Your task to perform on an android device: Clear the shopping cart on newegg.com. Search for "logitech g pro" on newegg.com, select the first entry, and add it to the cart. Image 0: 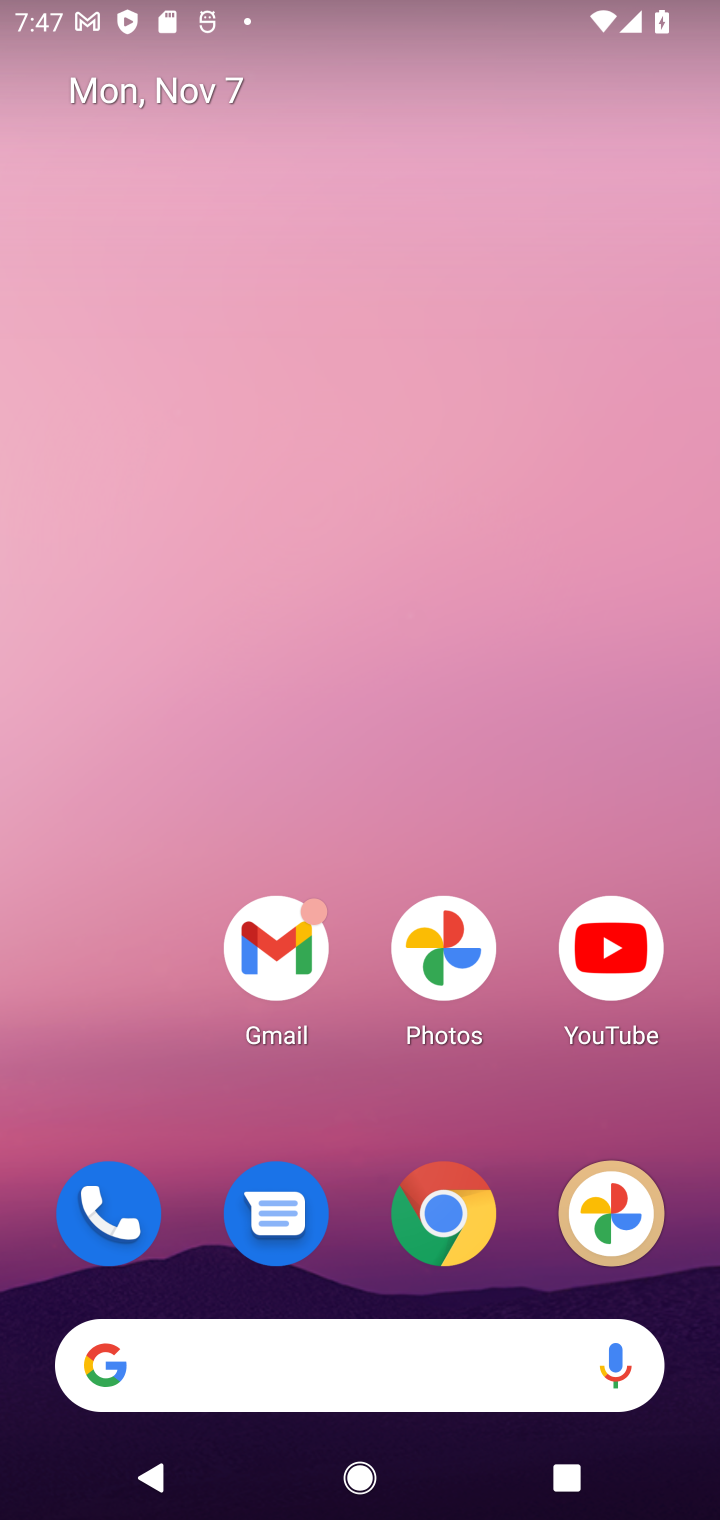
Step 0: click (453, 1210)
Your task to perform on an android device: Clear the shopping cart on newegg.com. Search for "logitech g pro" on newegg.com, select the first entry, and add it to the cart. Image 1: 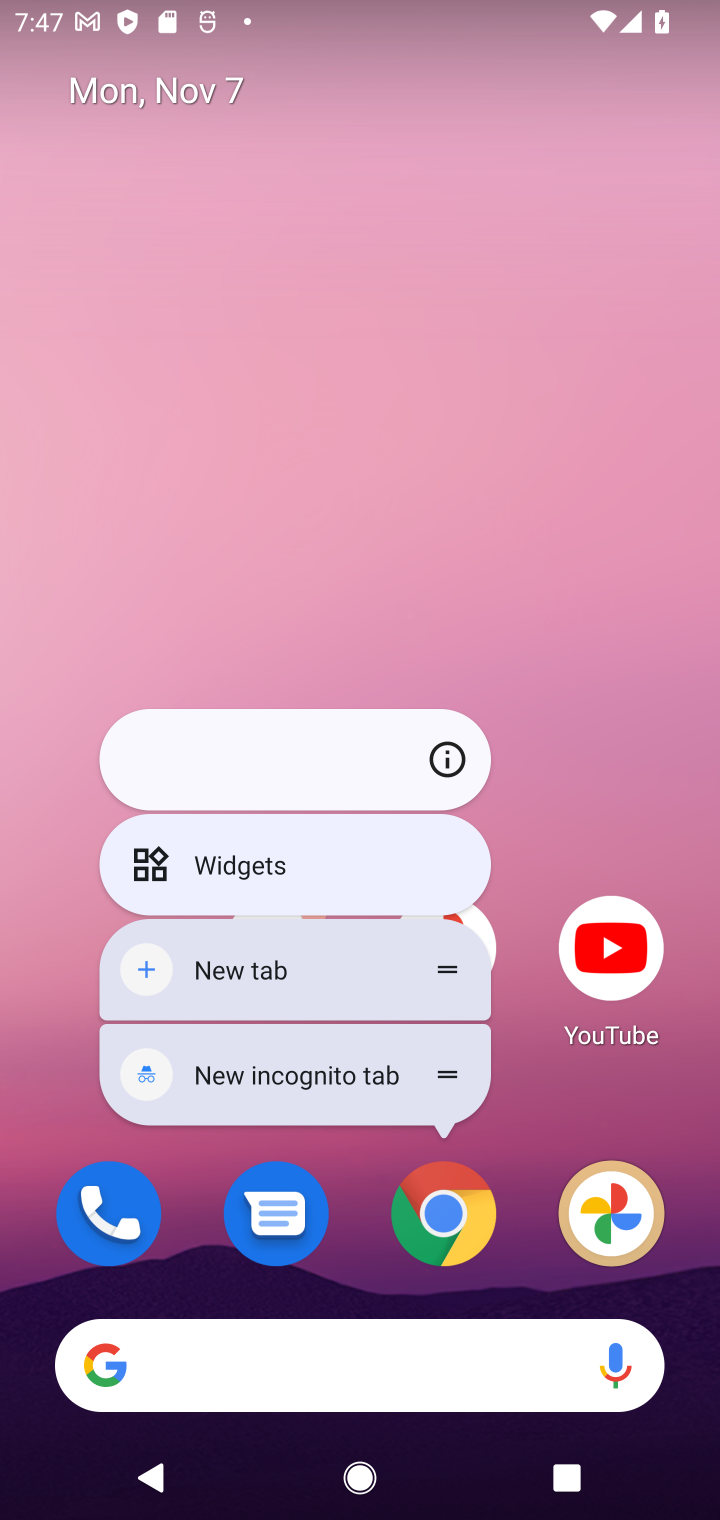
Step 1: click (453, 1210)
Your task to perform on an android device: Clear the shopping cart on newegg.com. Search for "logitech g pro" on newegg.com, select the first entry, and add it to the cart. Image 2: 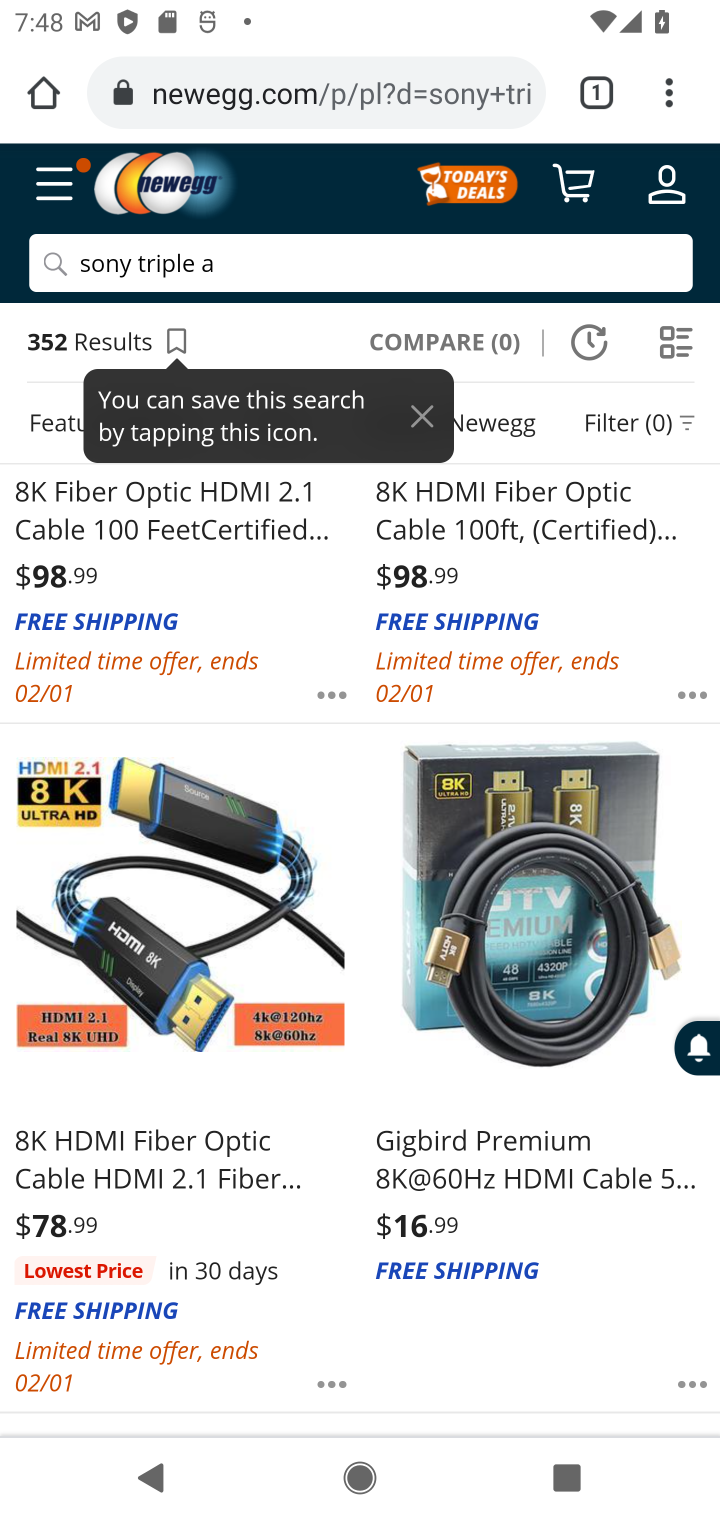
Step 2: click (569, 189)
Your task to perform on an android device: Clear the shopping cart on newegg.com. Search for "logitech g pro" on newegg.com, select the first entry, and add it to the cart. Image 3: 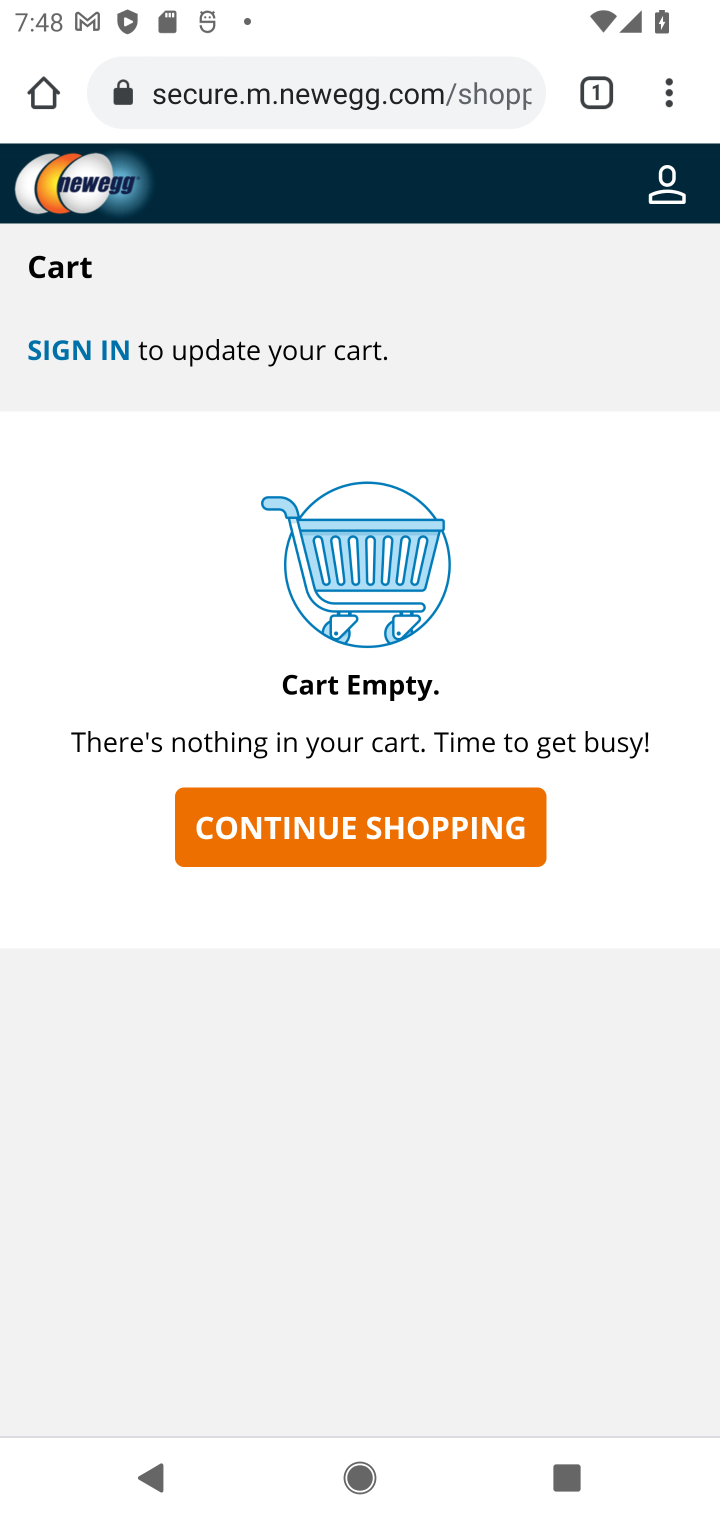
Step 3: click (320, 816)
Your task to perform on an android device: Clear the shopping cart on newegg.com. Search for "logitech g pro" on newegg.com, select the first entry, and add it to the cart. Image 4: 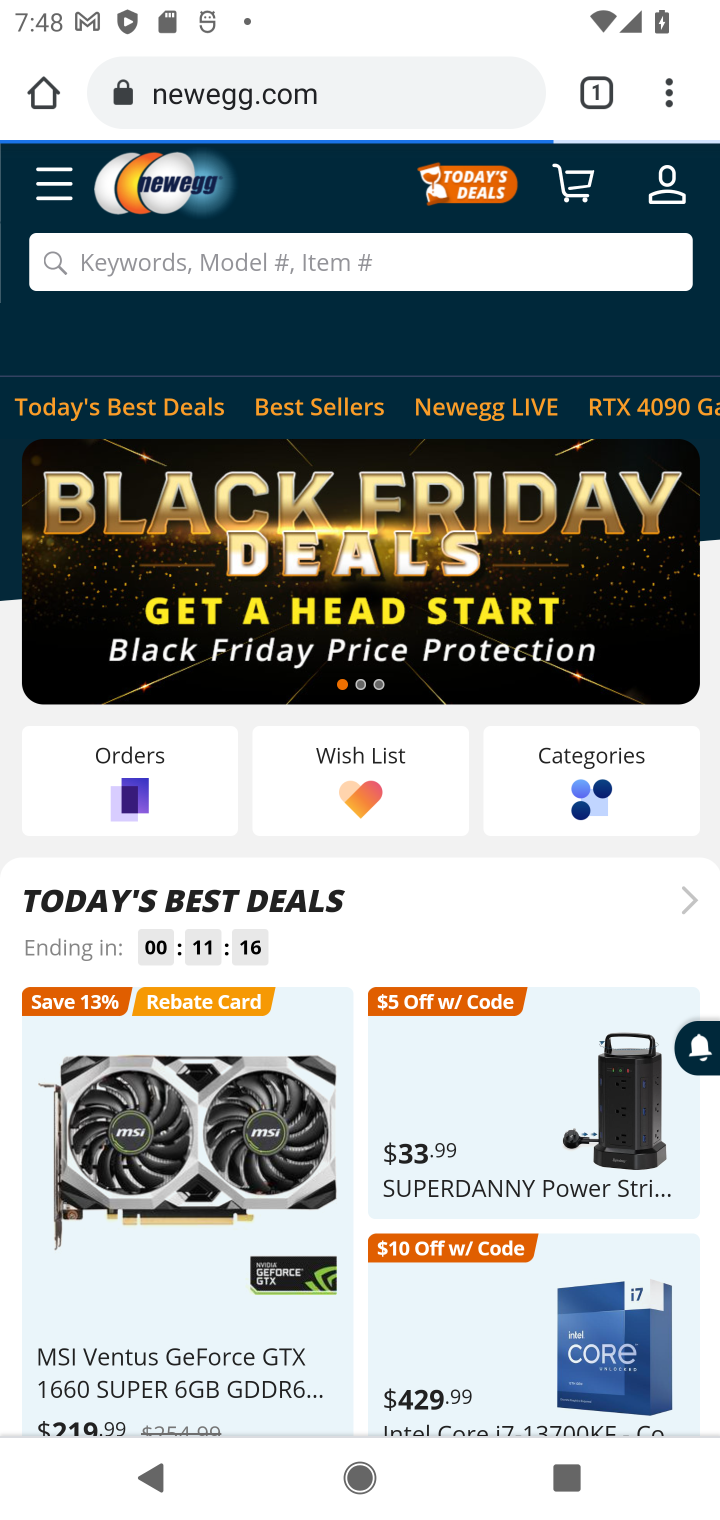
Step 4: click (335, 257)
Your task to perform on an android device: Clear the shopping cart on newegg.com. Search for "logitech g pro" on newegg.com, select the first entry, and add it to the cart. Image 5: 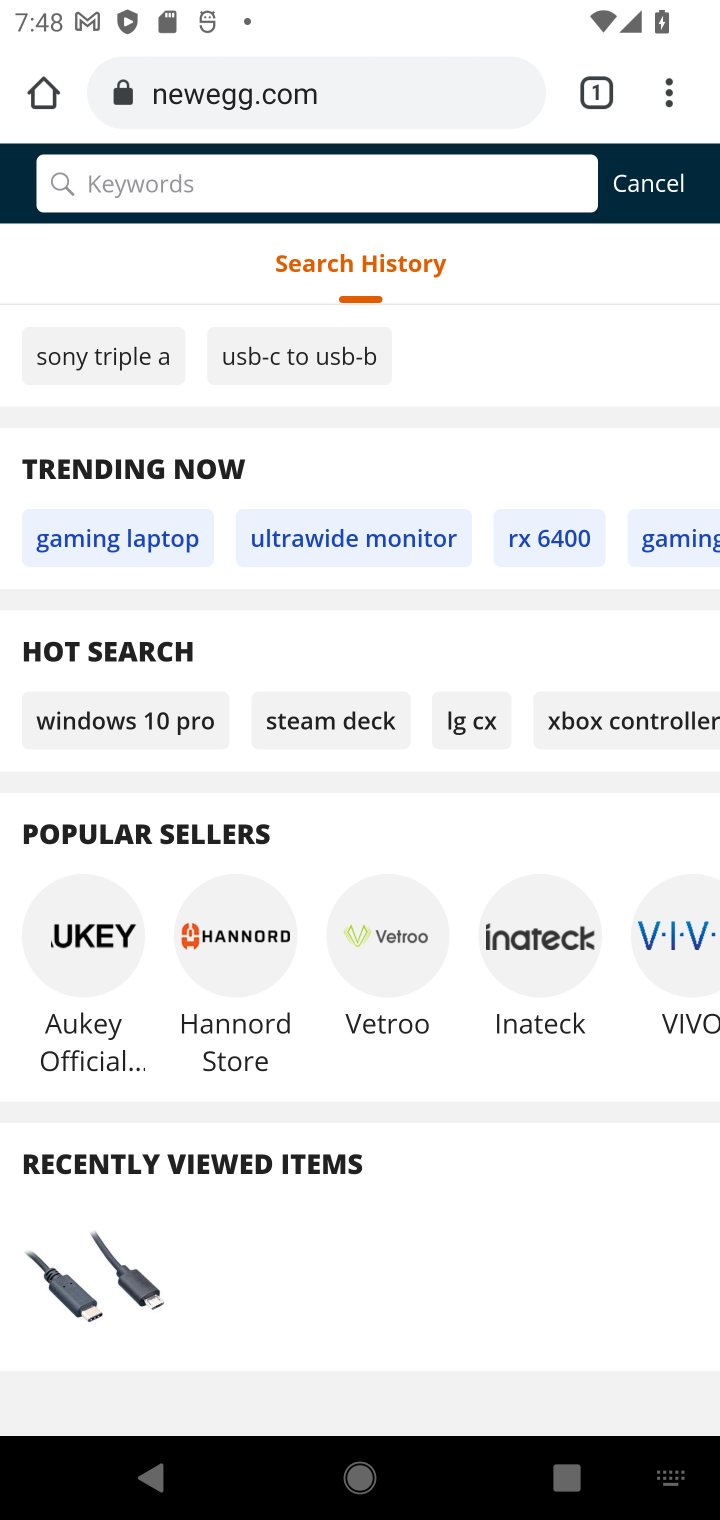
Step 5: type "logitech g pro"
Your task to perform on an android device: Clear the shopping cart on newegg.com. Search for "logitech g pro" on newegg.com, select the first entry, and add it to the cart. Image 6: 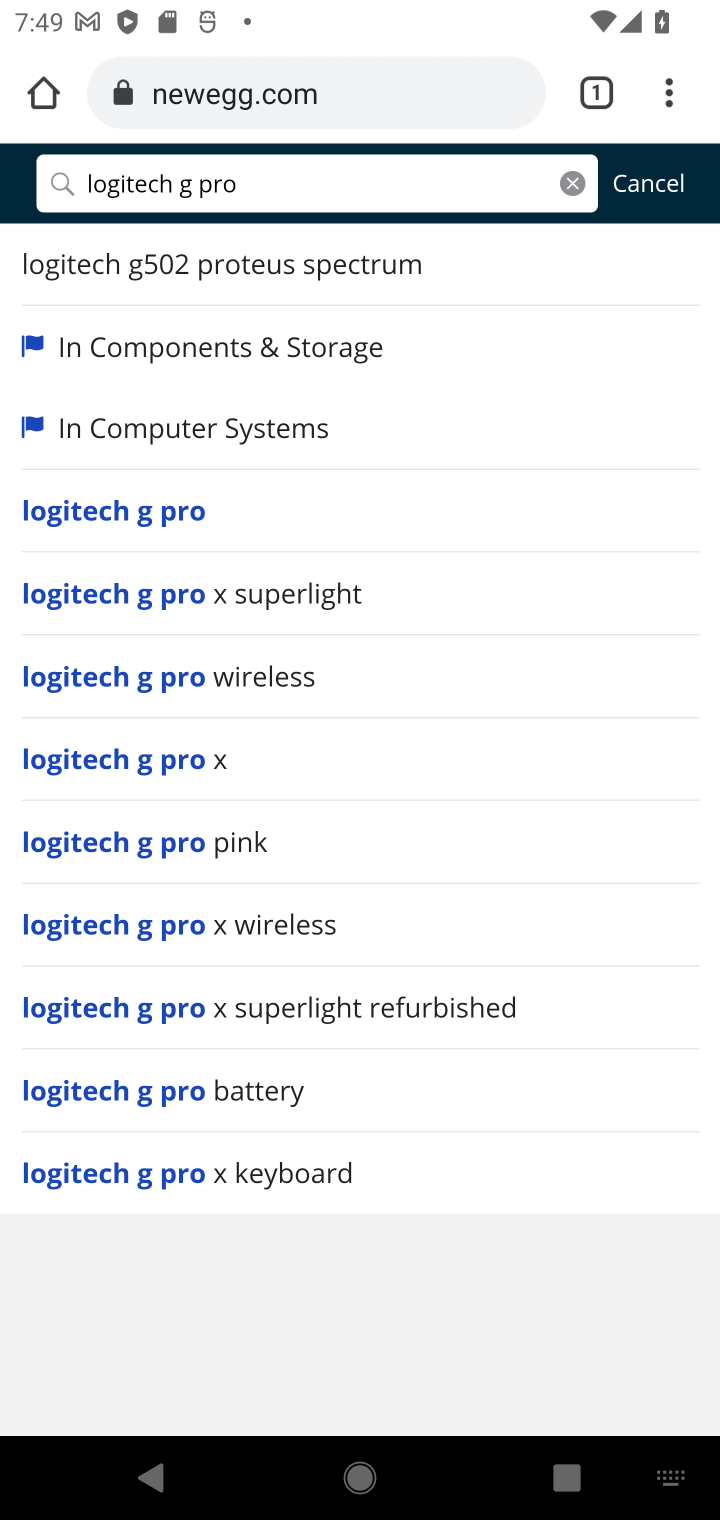
Step 6: click (121, 514)
Your task to perform on an android device: Clear the shopping cart on newegg.com. Search for "logitech g pro" on newegg.com, select the first entry, and add it to the cart. Image 7: 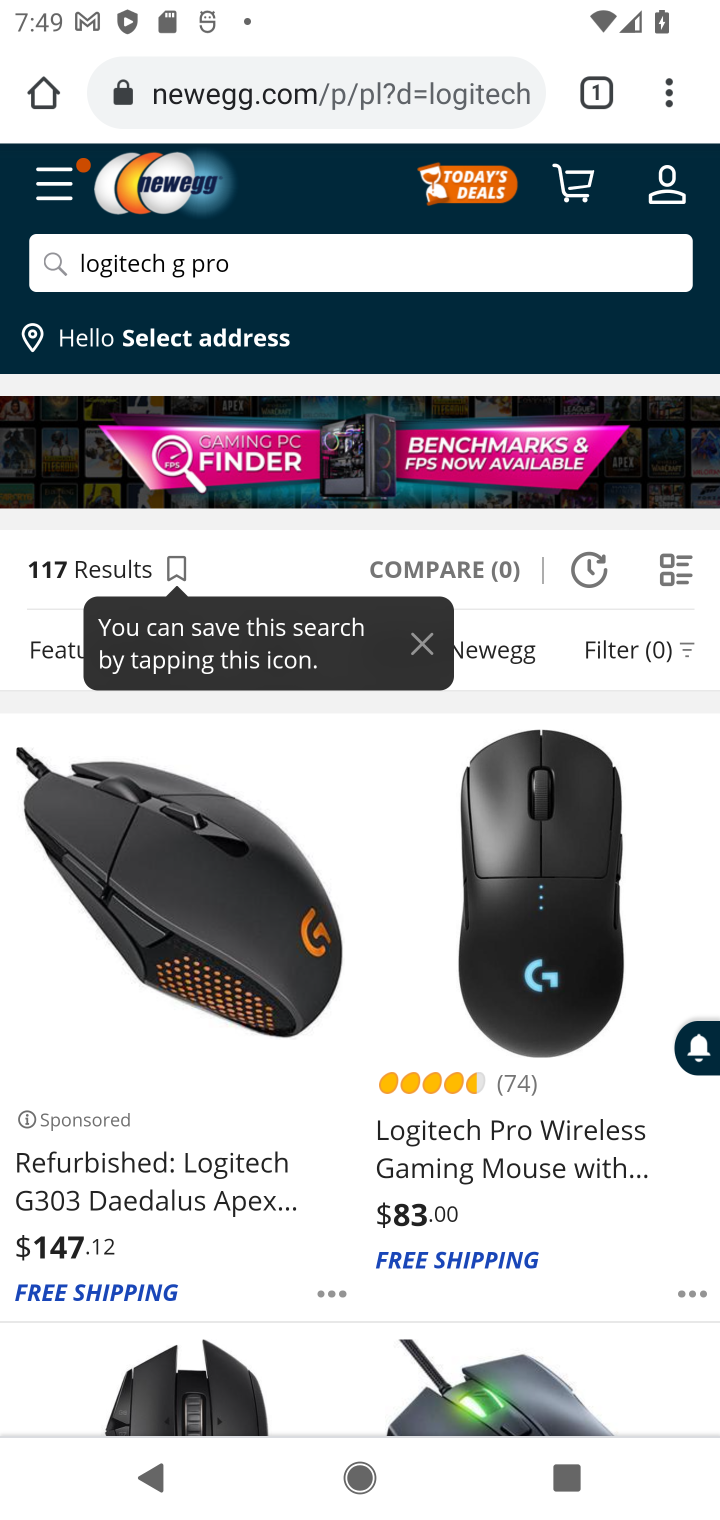
Step 7: task complete